Your task to perform on an android device: change the clock display to digital Image 0: 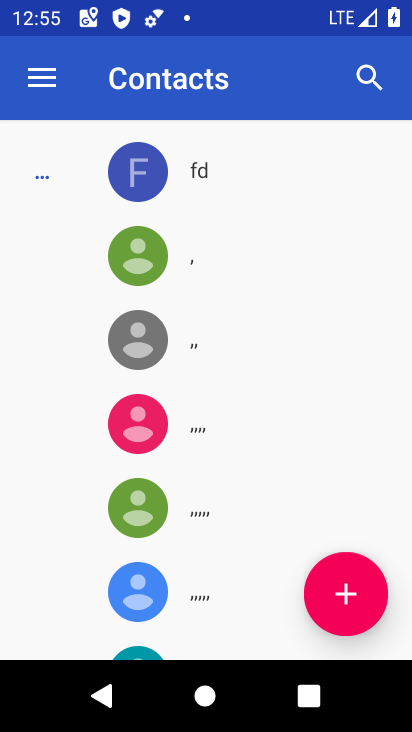
Step 0: press home button
Your task to perform on an android device: change the clock display to digital Image 1: 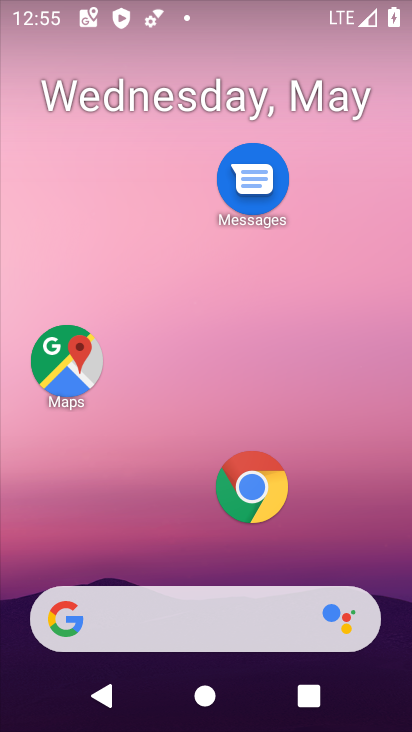
Step 1: drag from (182, 522) to (226, 54)
Your task to perform on an android device: change the clock display to digital Image 2: 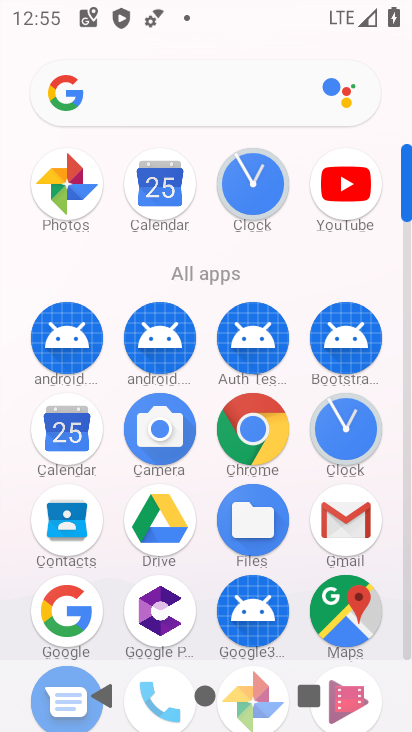
Step 2: click (242, 431)
Your task to perform on an android device: change the clock display to digital Image 3: 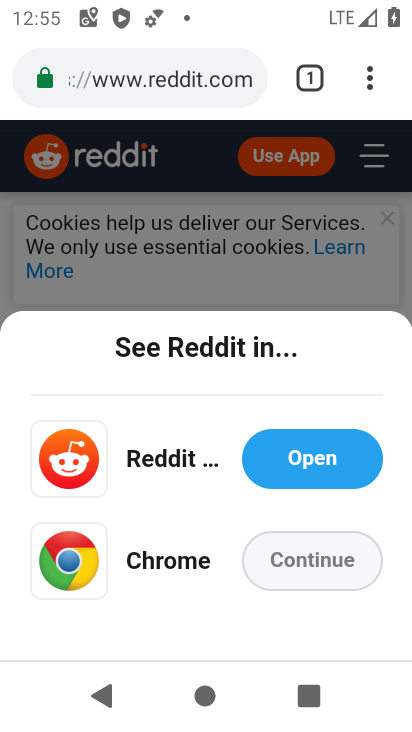
Step 3: press home button
Your task to perform on an android device: change the clock display to digital Image 4: 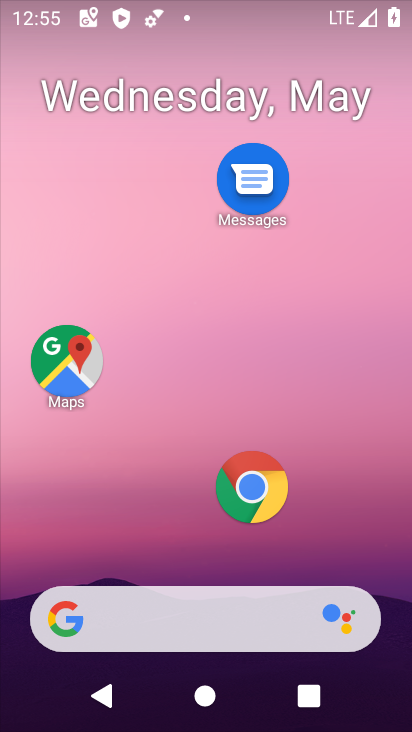
Step 4: drag from (259, 545) to (306, 5)
Your task to perform on an android device: change the clock display to digital Image 5: 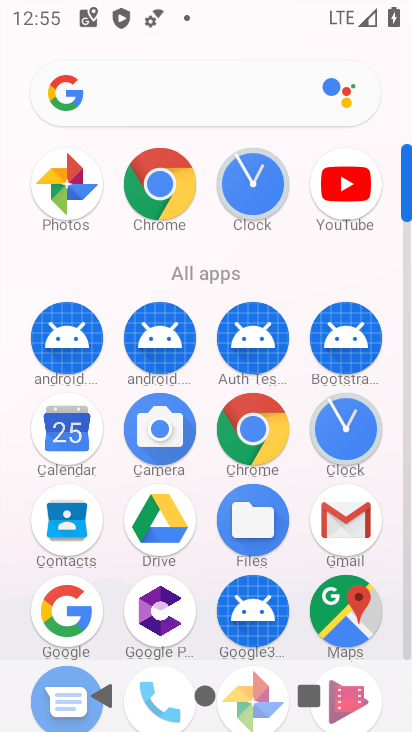
Step 5: click (353, 436)
Your task to perform on an android device: change the clock display to digital Image 6: 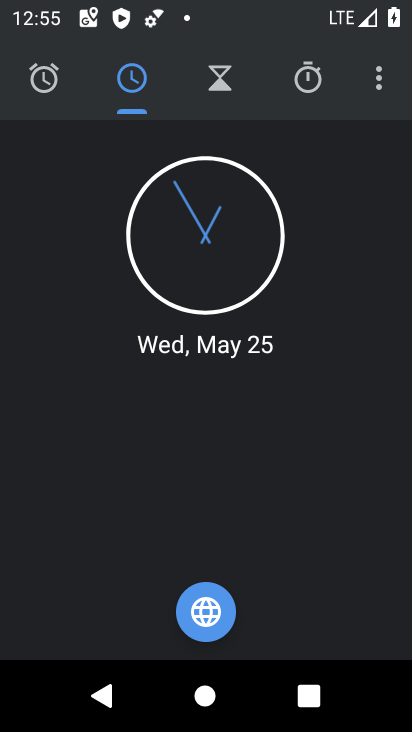
Step 6: click (384, 75)
Your task to perform on an android device: change the clock display to digital Image 7: 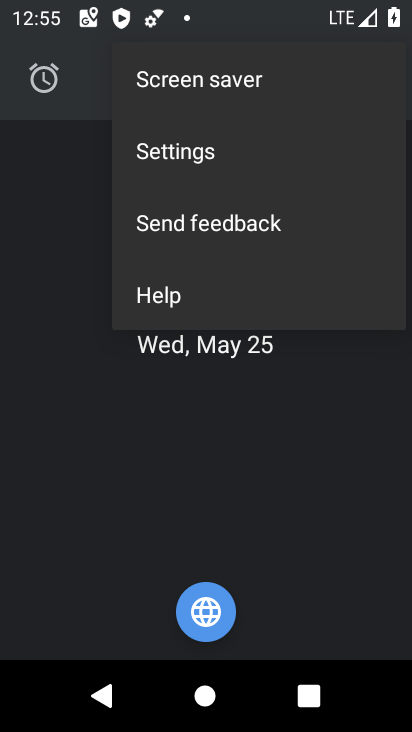
Step 7: click (155, 167)
Your task to perform on an android device: change the clock display to digital Image 8: 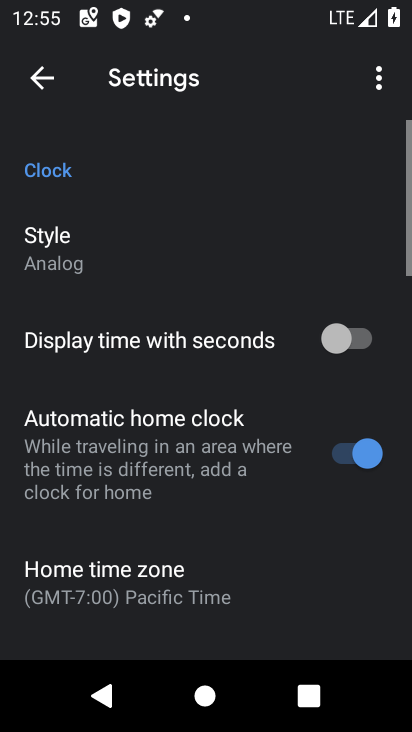
Step 8: click (104, 275)
Your task to perform on an android device: change the clock display to digital Image 9: 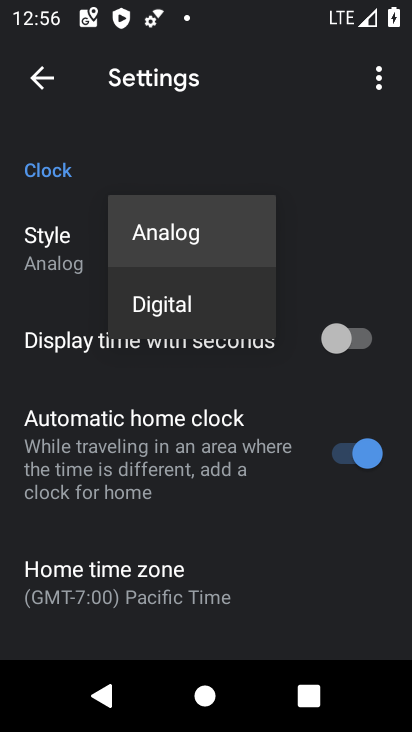
Step 9: click (141, 310)
Your task to perform on an android device: change the clock display to digital Image 10: 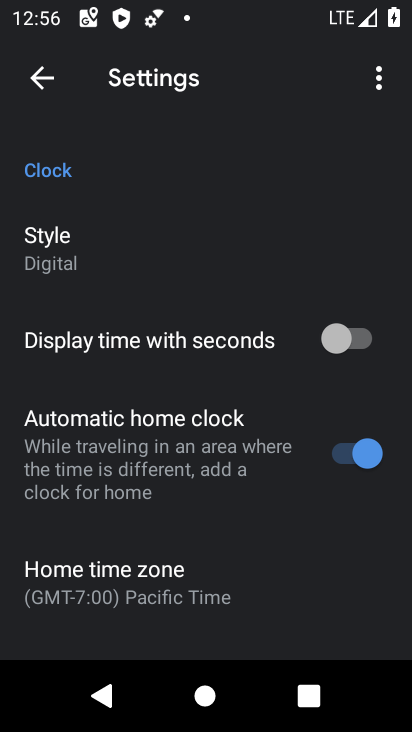
Step 10: task complete